Your task to perform on an android device: Go to privacy settings Image 0: 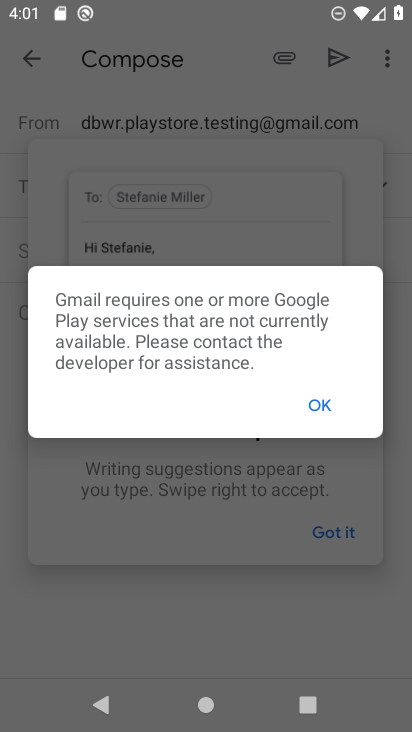
Step 0: press home button
Your task to perform on an android device: Go to privacy settings Image 1: 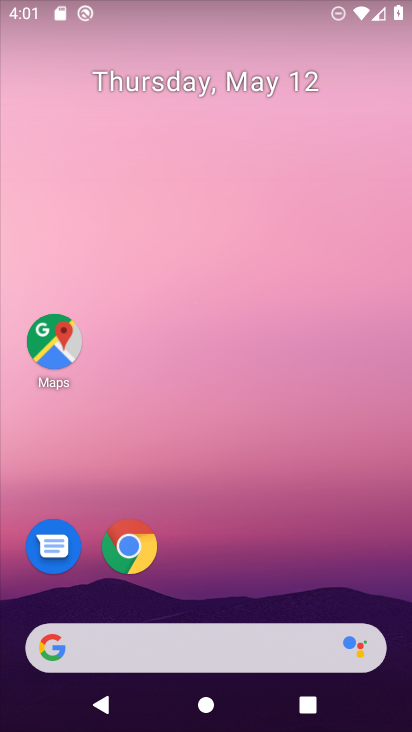
Step 1: drag from (258, 596) to (252, 282)
Your task to perform on an android device: Go to privacy settings Image 2: 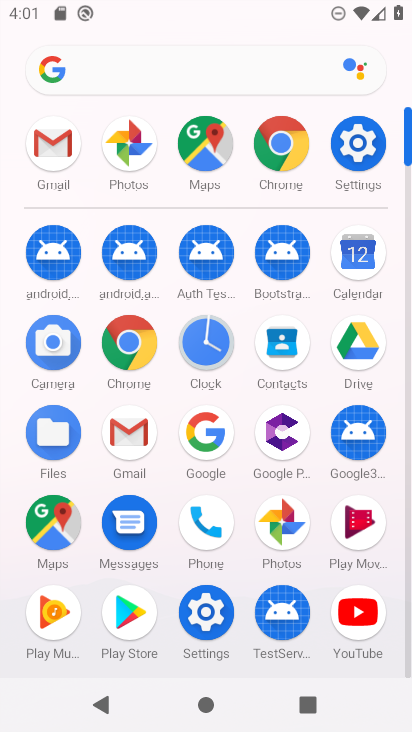
Step 2: click (200, 617)
Your task to perform on an android device: Go to privacy settings Image 3: 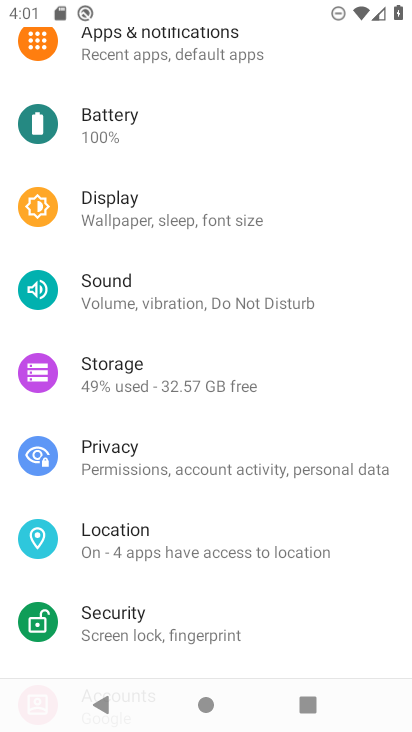
Step 3: click (164, 444)
Your task to perform on an android device: Go to privacy settings Image 4: 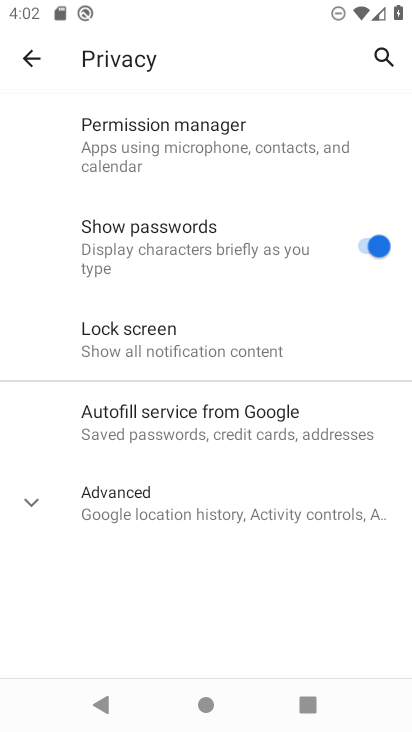
Step 4: task complete